Your task to perform on an android device: open a new tab in the chrome app Image 0: 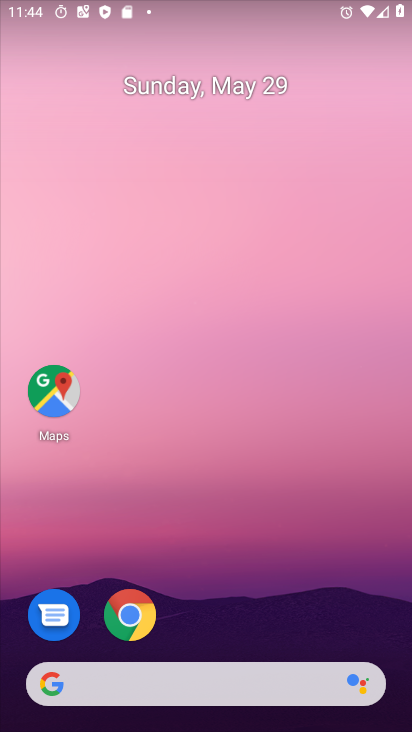
Step 0: drag from (219, 611) to (208, 51)
Your task to perform on an android device: open a new tab in the chrome app Image 1: 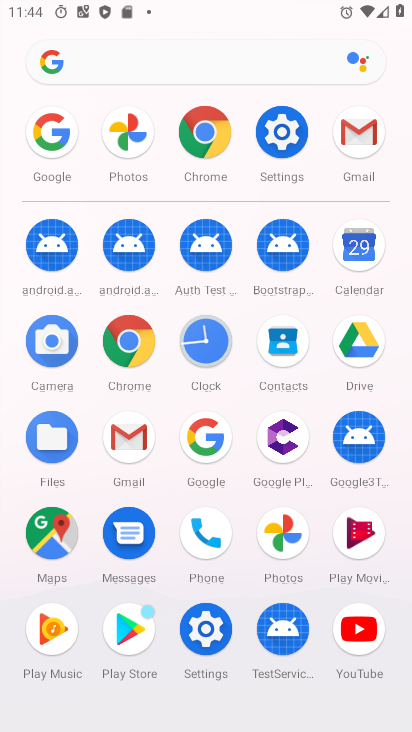
Step 1: click (201, 126)
Your task to perform on an android device: open a new tab in the chrome app Image 2: 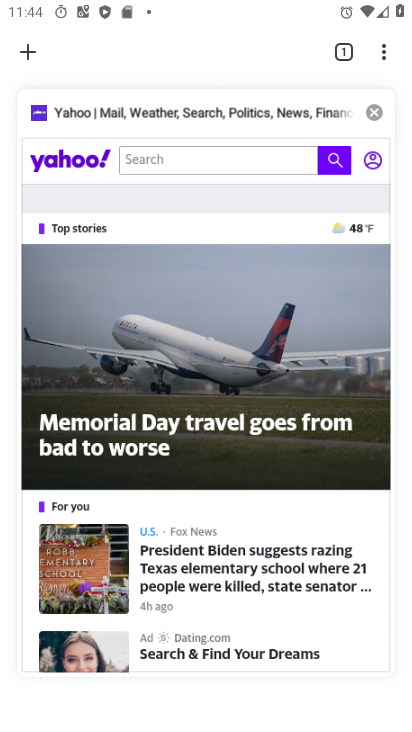
Step 2: click (347, 57)
Your task to perform on an android device: open a new tab in the chrome app Image 3: 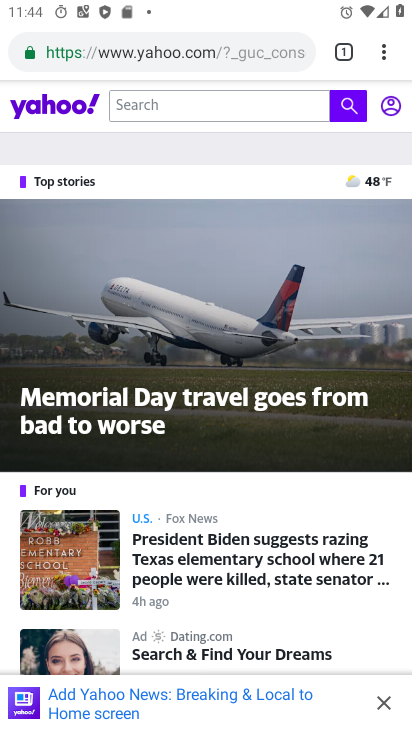
Step 3: click (343, 53)
Your task to perform on an android device: open a new tab in the chrome app Image 4: 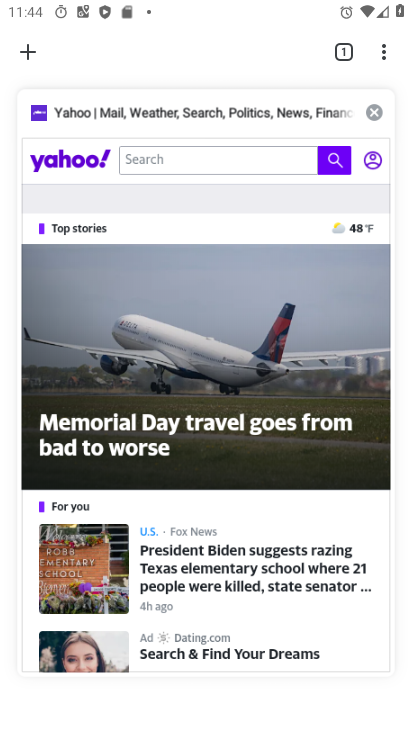
Step 4: click (19, 46)
Your task to perform on an android device: open a new tab in the chrome app Image 5: 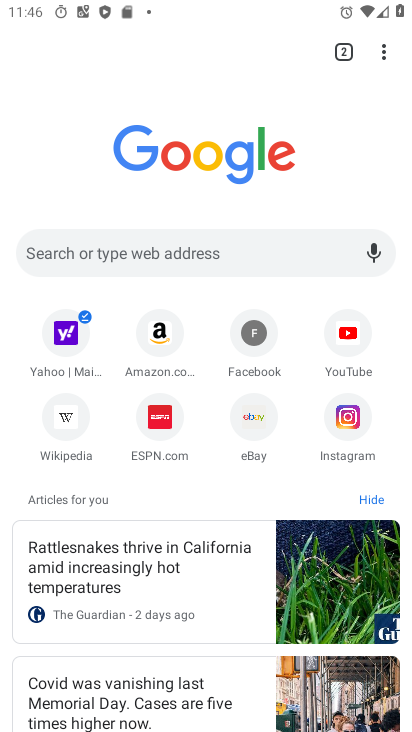
Step 5: task complete